Your task to perform on an android device: allow cookies in the chrome app Image 0: 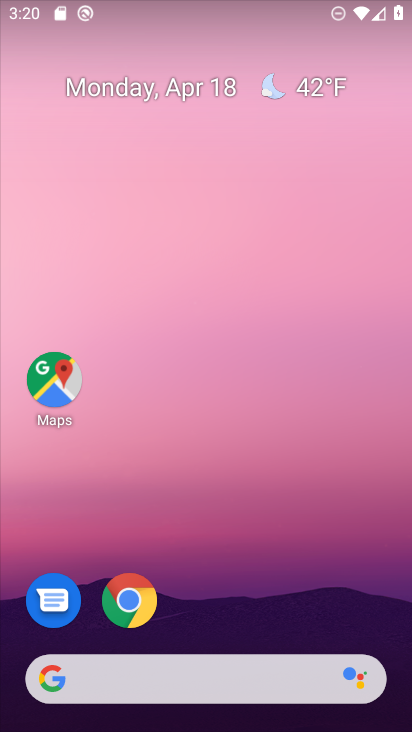
Step 0: drag from (150, 676) to (308, 162)
Your task to perform on an android device: allow cookies in the chrome app Image 1: 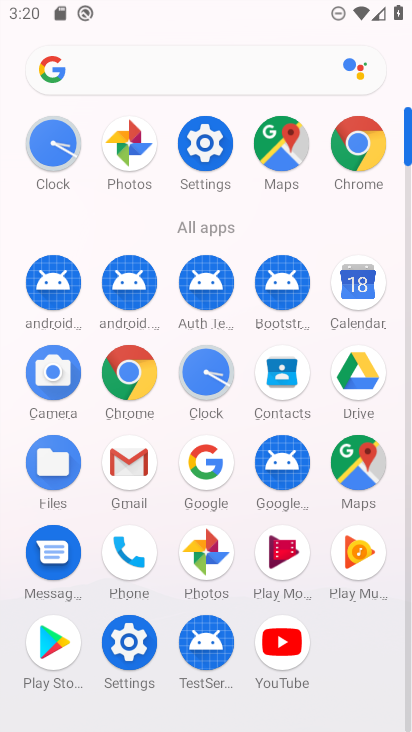
Step 1: click (356, 149)
Your task to perform on an android device: allow cookies in the chrome app Image 2: 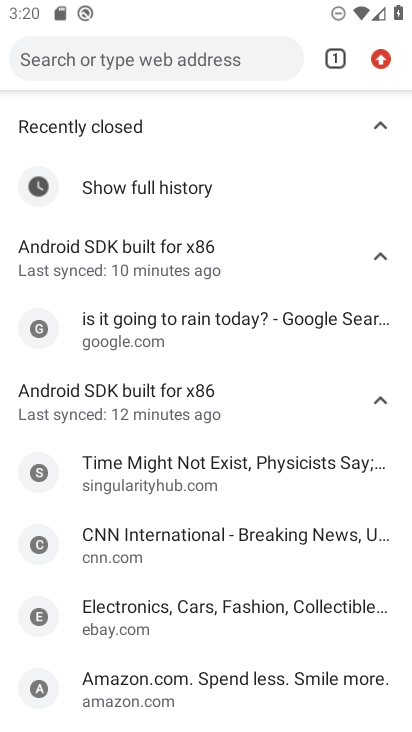
Step 2: click (386, 64)
Your task to perform on an android device: allow cookies in the chrome app Image 3: 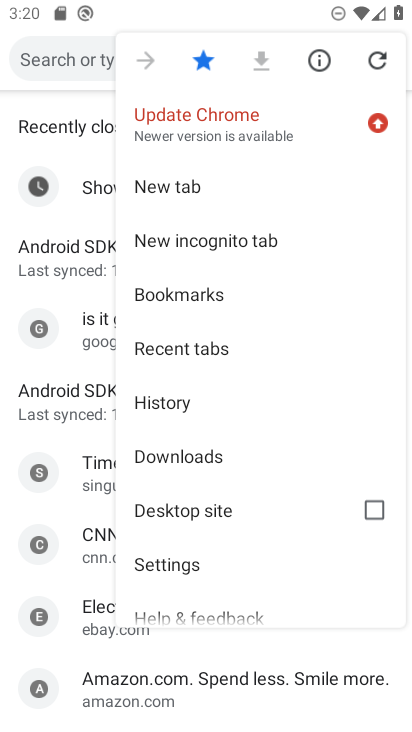
Step 3: click (156, 559)
Your task to perform on an android device: allow cookies in the chrome app Image 4: 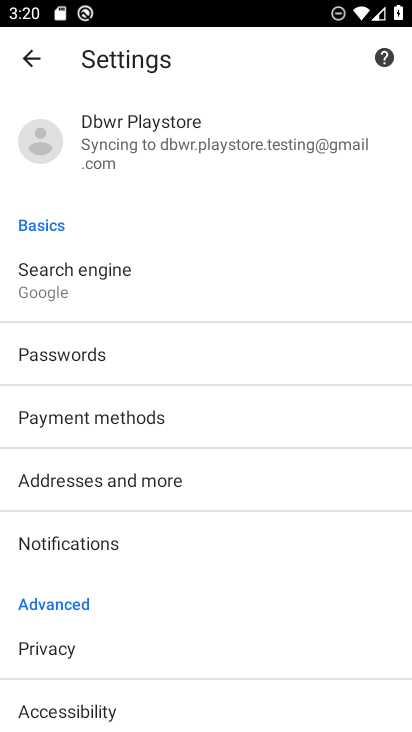
Step 4: drag from (168, 614) to (308, 187)
Your task to perform on an android device: allow cookies in the chrome app Image 5: 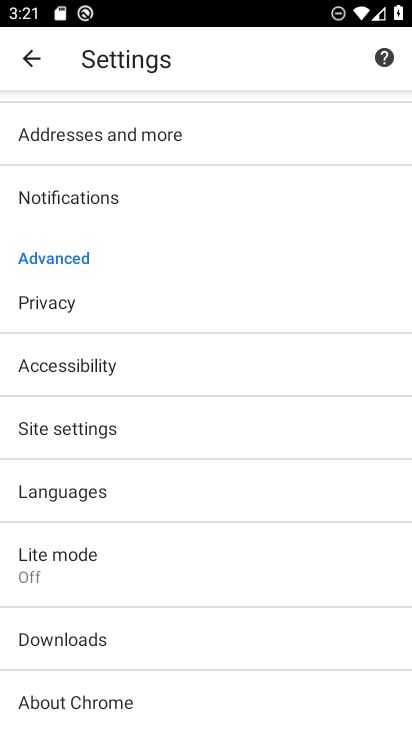
Step 5: click (68, 430)
Your task to perform on an android device: allow cookies in the chrome app Image 6: 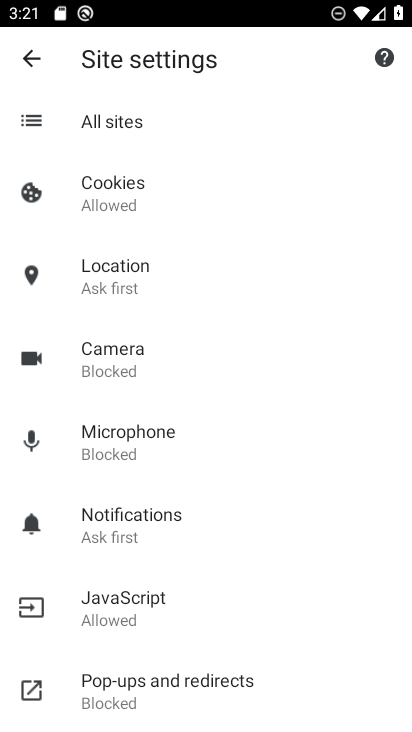
Step 6: click (133, 190)
Your task to perform on an android device: allow cookies in the chrome app Image 7: 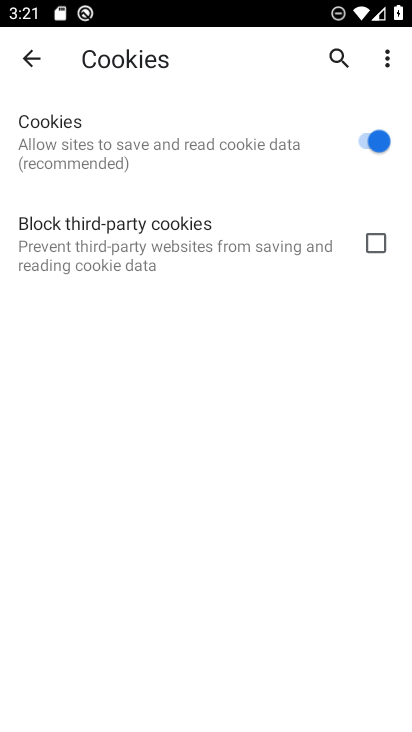
Step 7: task complete